Your task to perform on an android device: turn vacation reply on in the gmail app Image 0: 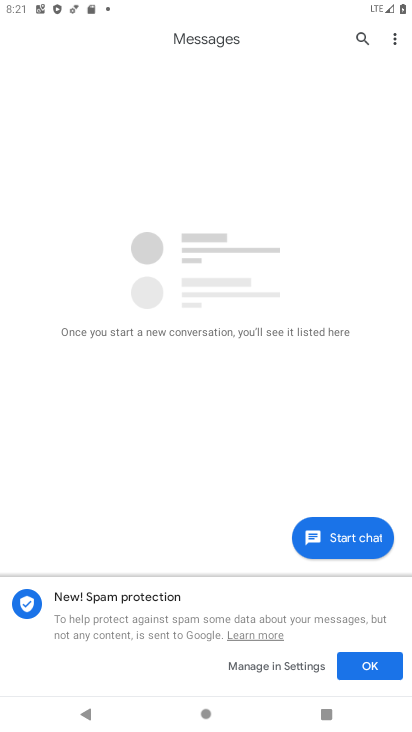
Step 0: press home button
Your task to perform on an android device: turn vacation reply on in the gmail app Image 1: 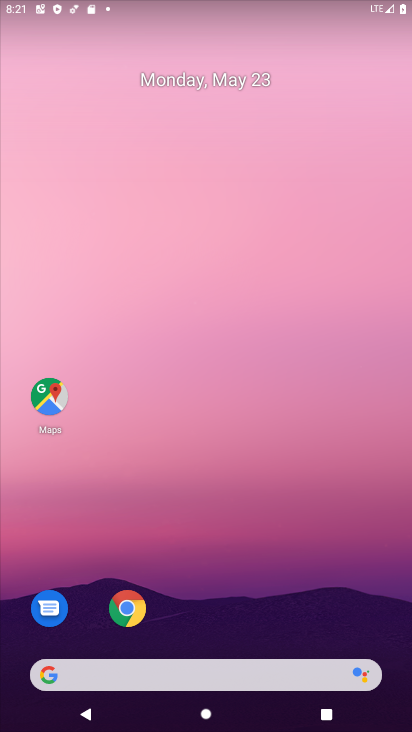
Step 1: drag from (219, 669) to (192, 203)
Your task to perform on an android device: turn vacation reply on in the gmail app Image 2: 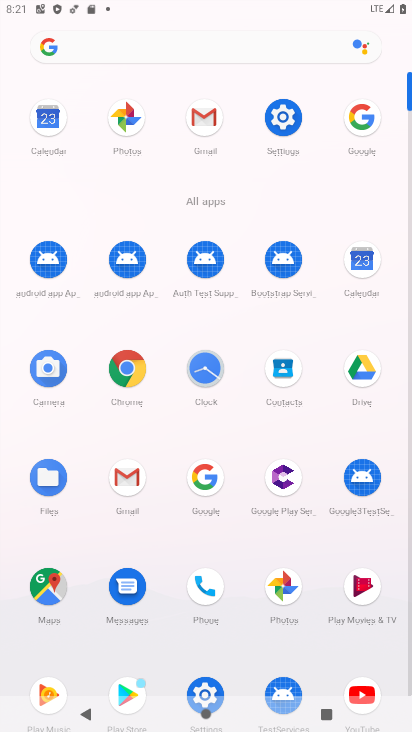
Step 2: click (130, 490)
Your task to perform on an android device: turn vacation reply on in the gmail app Image 3: 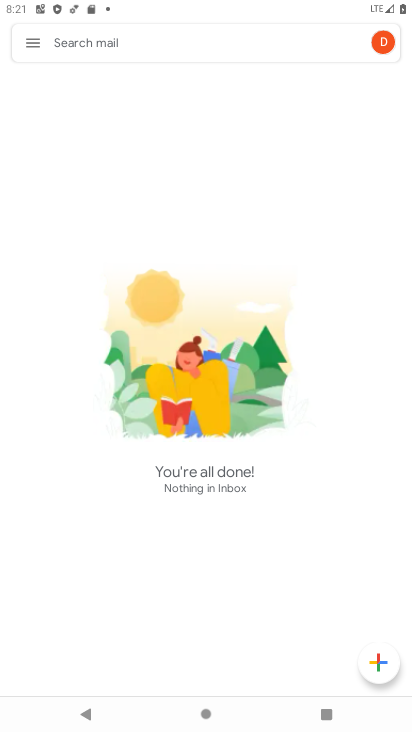
Step 3: click (26, 48)
Your task to perform on an android device: turn vacation reply on in the gmail app Image 4: 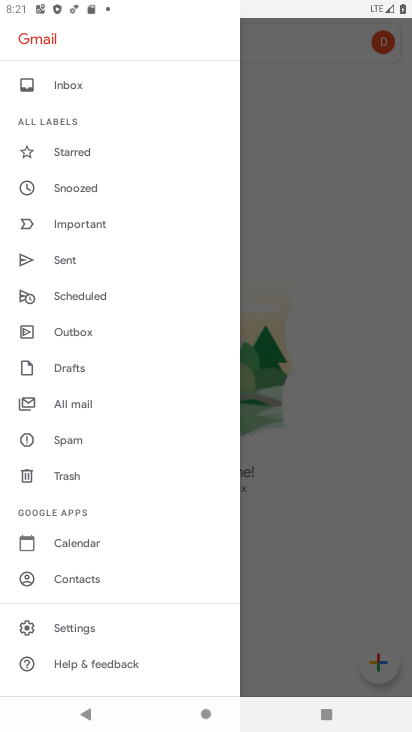
Step 4: click (109, 627)
Your task to perform on an android device: turn vacation reply on in the gmail app Image 5: 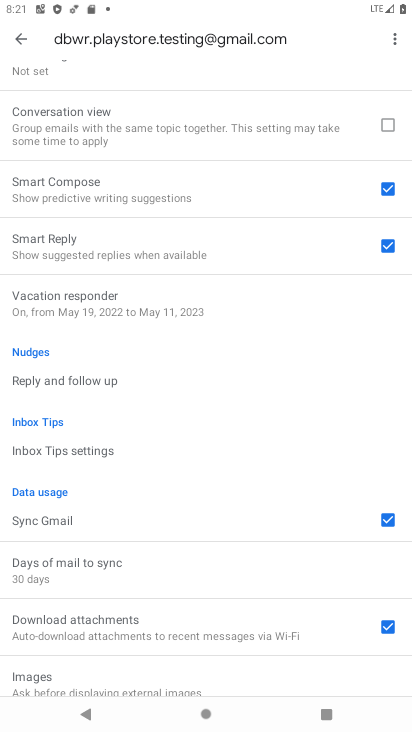
Step 5: drag from (179, 600) to (178, 310)
Your task to perform on an android device: turn vacation reply on in the gmail app Image 6: 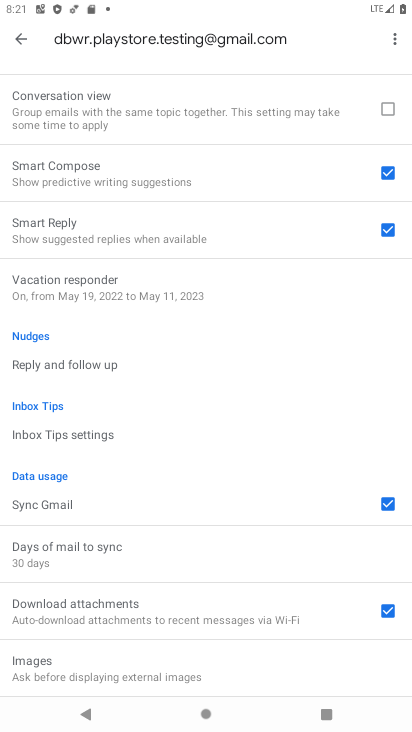
Step 6: drag from (178, 310) to (160, 554)
Your task to perform on an android device: turn vacation reply on in the gmail app Image 7: 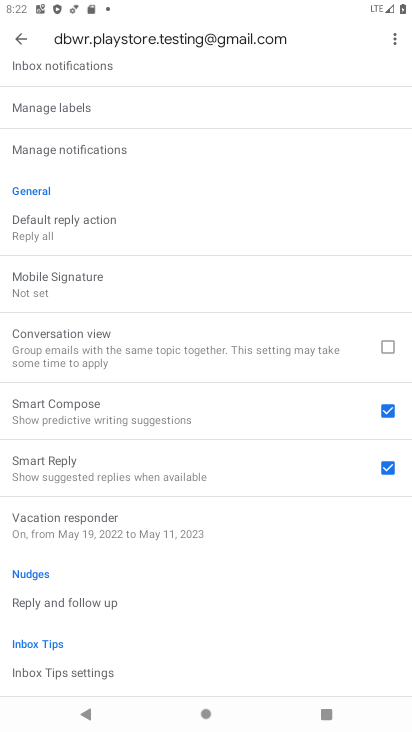
Step 7: click (64, 519)
Your task to perform on an android device: turn vacation reply on in the gmail app Image 8: 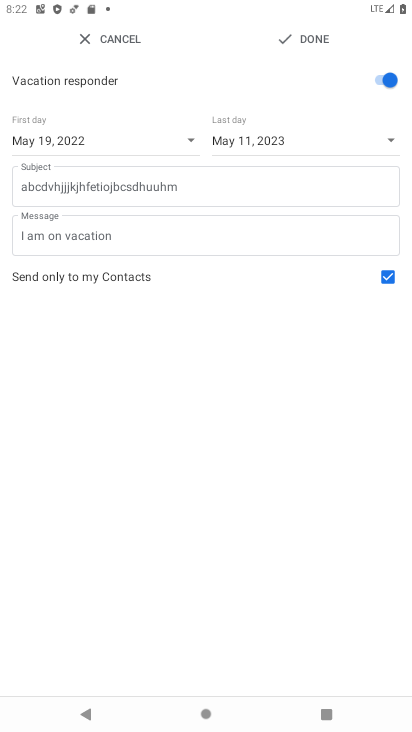
Step 8: click (292, 36)
Your task to perform on an android device: turn vacation reply on in the gmail app Image 9: 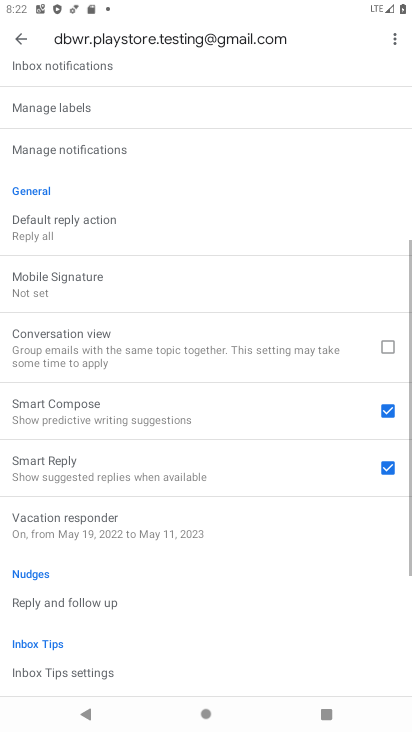
Step 9: task complete